Your task to perform on an android device: Do I have any events today? Image 0: 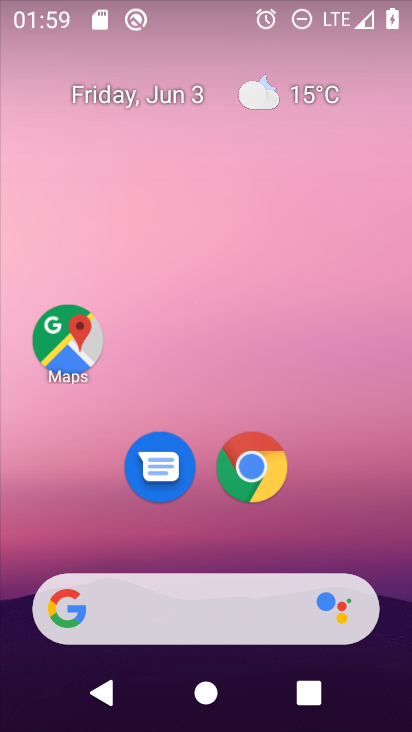
Step 0: drag from (388, 599) to (295, 106)
Your task to perform on an android device: Do I have any events today? Image 1: 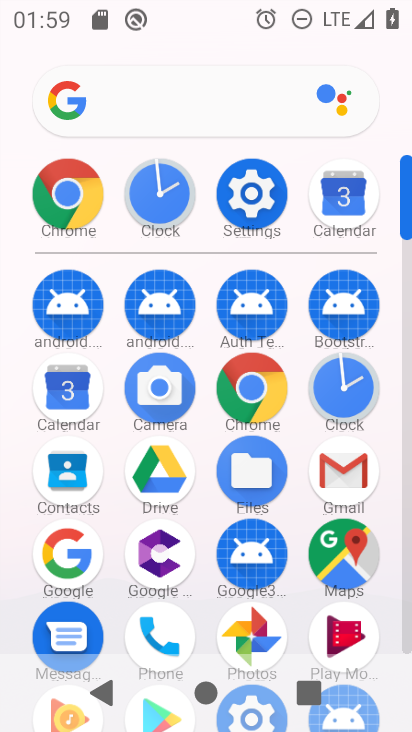
Step 1: click (69, 392)
Your task to perform on an android device: Do I have any events today? Image 2: 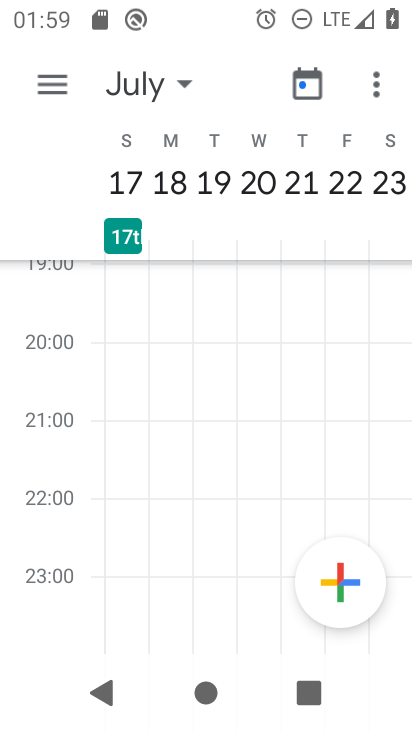
Step 2: click (44, 85)
Your task to perform on an android device: Do I have any events today? Image 3: 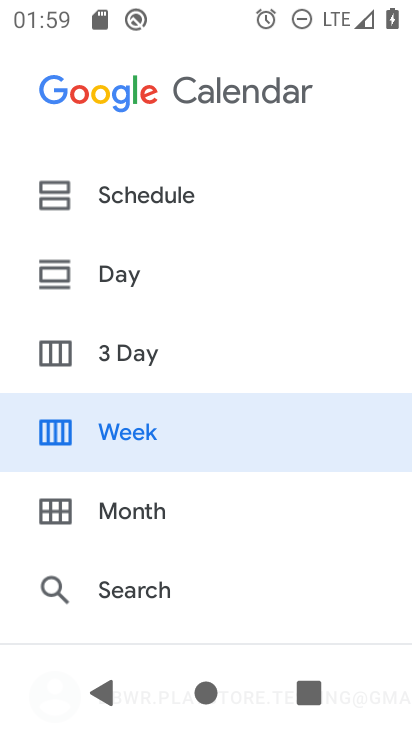
Step 3: click (119, 273)
Your task to perform on an android device: Do I have any events today? Image 4: 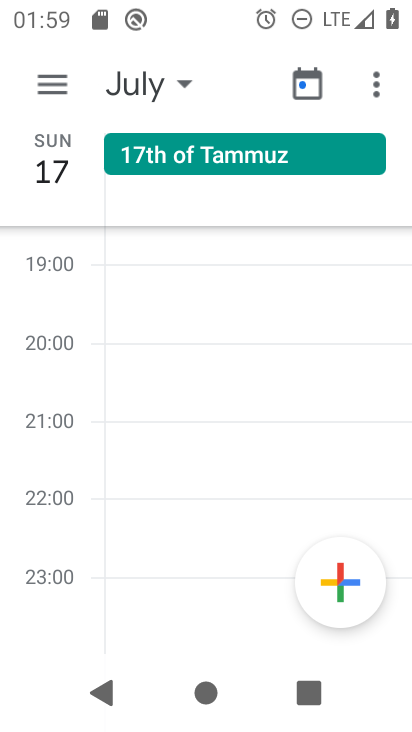
Step 4: click (174, 81)
Your task to perform on an android device: Do I have any events today? Image 5: 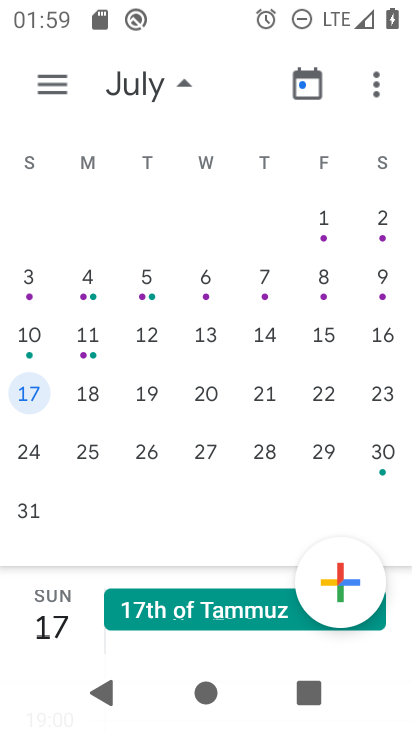
Step 5: drag from (32, 338) to (400, 337)
Your task to perform on an android device: Do I have any events today? Image 6: 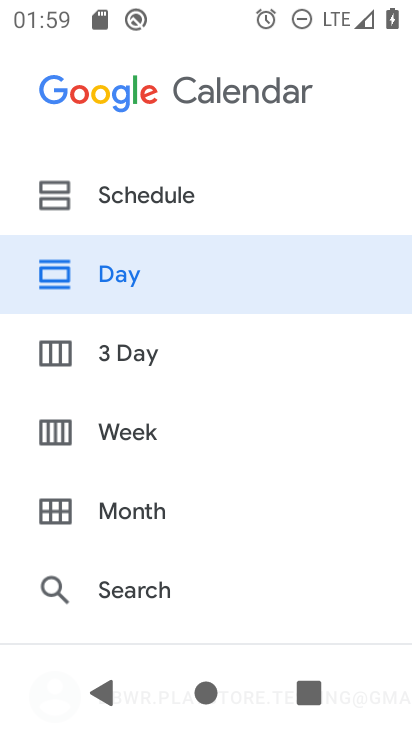
Step 6: click (110, 265)
Your task to perform on an android device: Do I have any events today? Image 7: 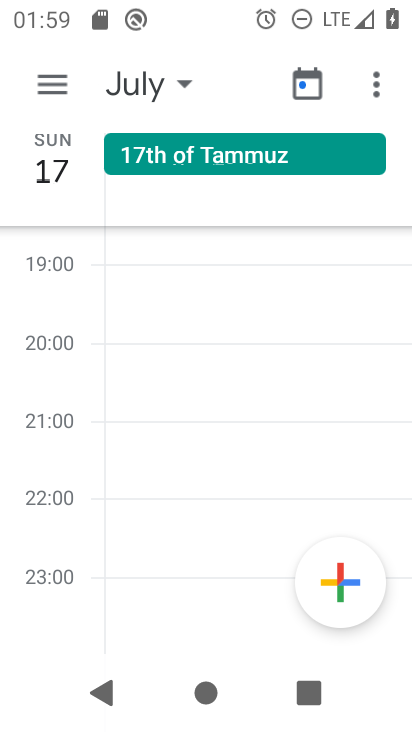
Step 7: click (172, 85)
Your task to perform on an android device: Do I have any events today? Image 8: 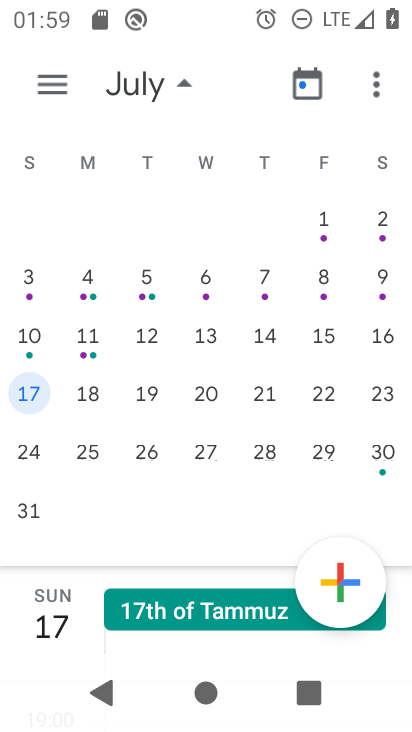
Step 8: drag from (45, 348) to (342, 328)
Your task to perform on an android device: Do I have any events today? Image 9: 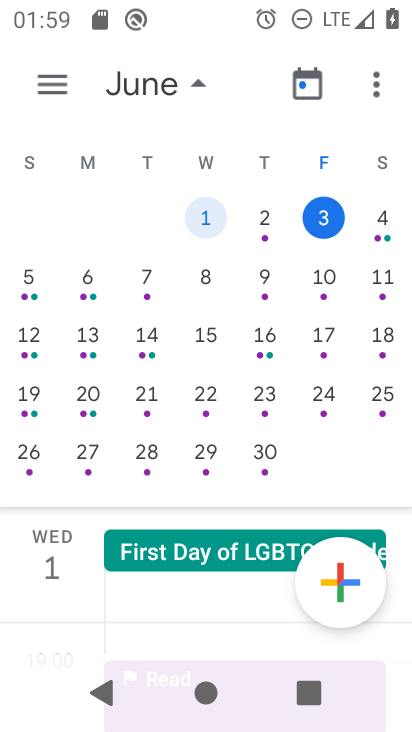
Step 9: click (321, 213)
Your task to perform on an android device: Do I have any events today? Image 10: 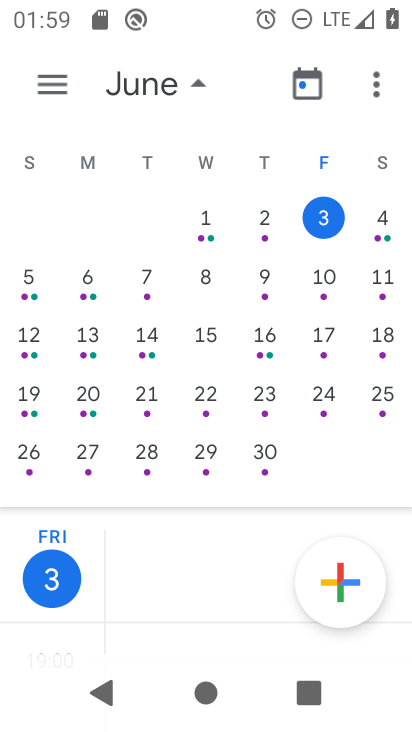
Step 10: task complete